Your task to perform on an android device: Go to settings Image 0: 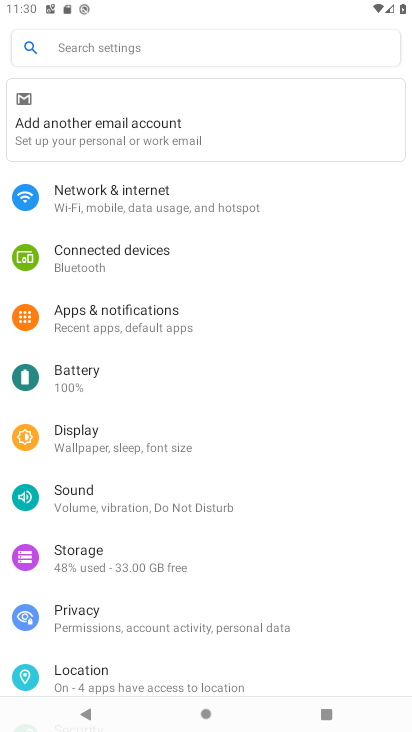
Step 0: drag from (243, 619) to (259, 310)
Your task to perform on an android device: Go to settings Image 1: 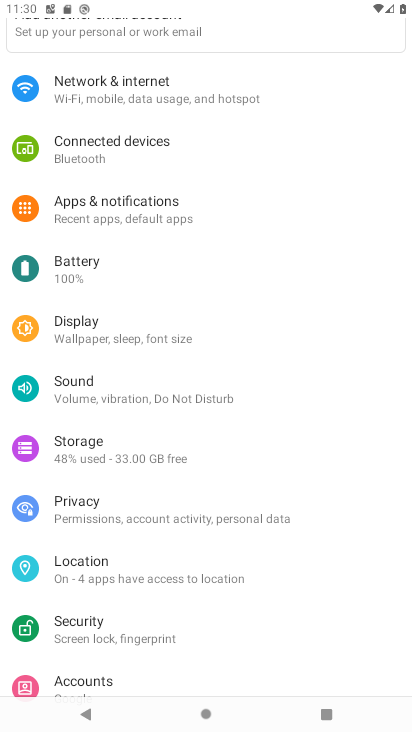
Step 1: task complete